Your task to perform on an android device: install app "AliExpress" Image 0: 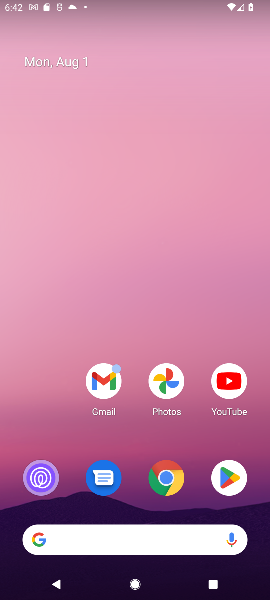
Step 0: press home button
Your task to perform on an android device: install app "AliExpress" Image 1: 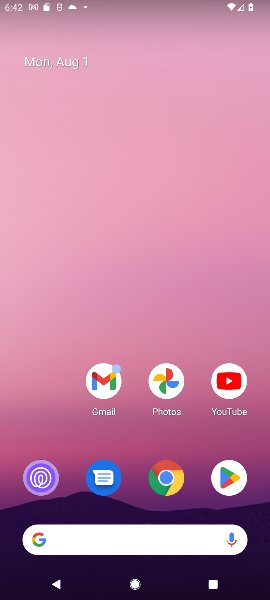
Step 1: click (227, 468)
Your task to perform on an android device: install app "AliExpress" Image 2: 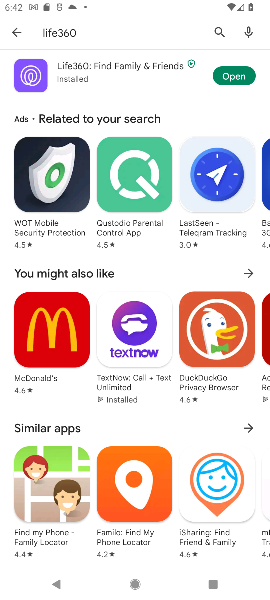
Step 2: click (219, 29)
Your task to perform on an android device: install app "AliExpress" Image 3: 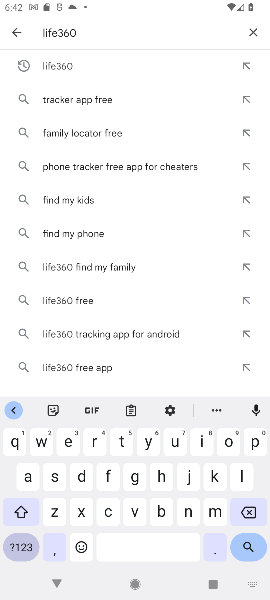
Step 3: click (246, 30)
Your task to perform on an android device: install app "AliExpress" Image 4: 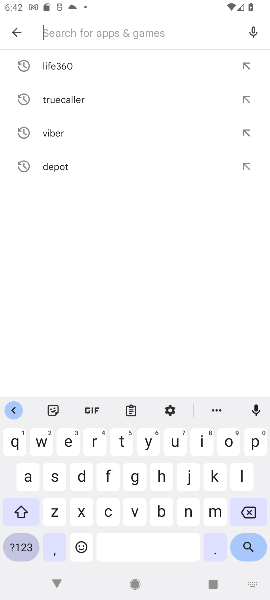
Step 4: click (23, 477)
Your task to perform on an android device: install app "AliExpress" Image 5: 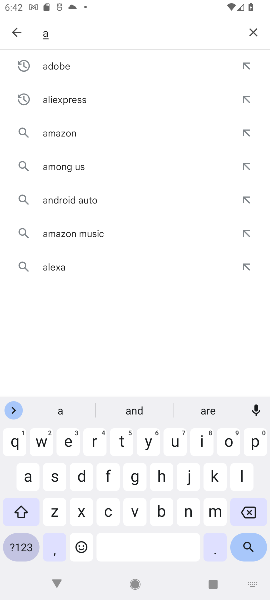
Step 5: click (240, 480)
Your task to perform on an android device: install app "AliExpress" Image 6: 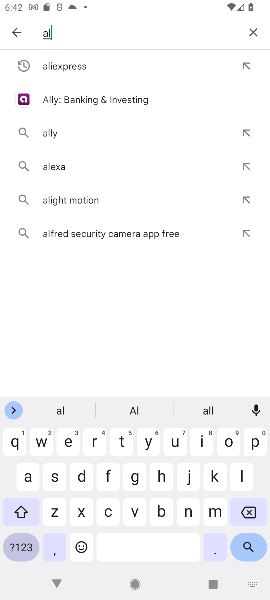
Step 6: click (67, 66)
Your task to perform on an android device: install app "AliExpress" Image 7: 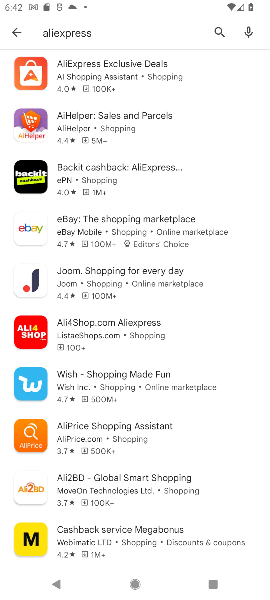
Step 7: click (114, 87)
Your task to perform on an android device: install app "AliExpress" Image 8: 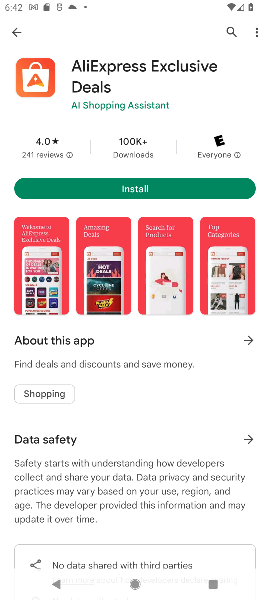
Step 8: click (131, 193)
Your task to perform on an android device: install app "AliExpress" Image 9: 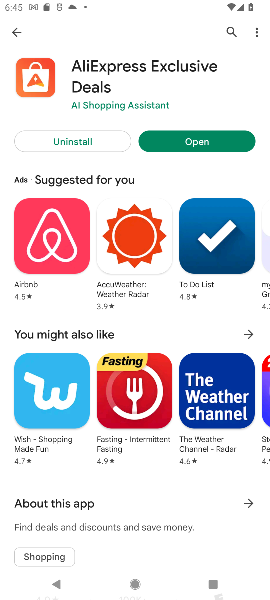
Step 9: task complete